Your task to perform on an android device: turn off improve location accuracy Image 0: 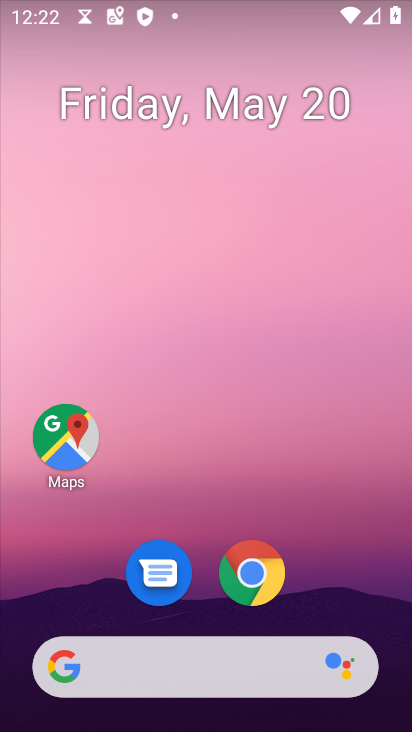
Step 0: drag from (327, 609) to (282, 42)
Your task to perform on an android device: turn off improve location accuracy Image 1: 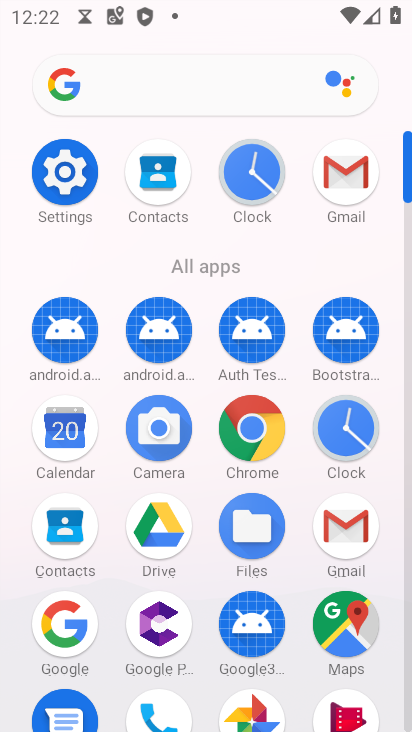
Step 1: click (68, 185)
Your task to perform on an android device: turn off improve location accuracy Image 2: 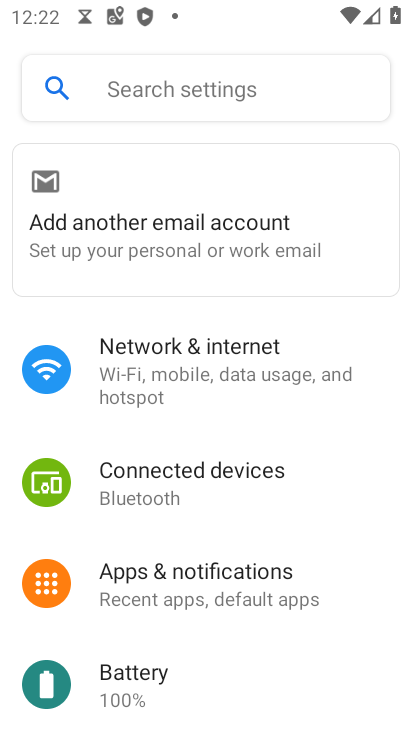
Step 2: drag from (154, 519) to (144, 238)
Your task to perform on an android device: turn off improve location accuracy Image 3: 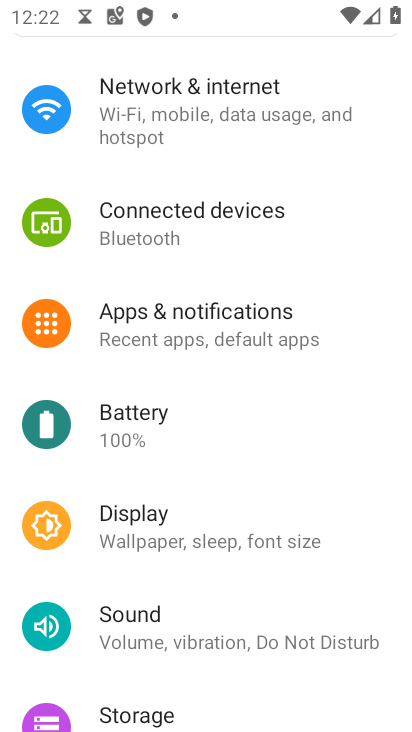
Step 3: drag from (143, 608) to (147, 225)
Your task to perform on an android device: turn off improve location accuracy Image 4: 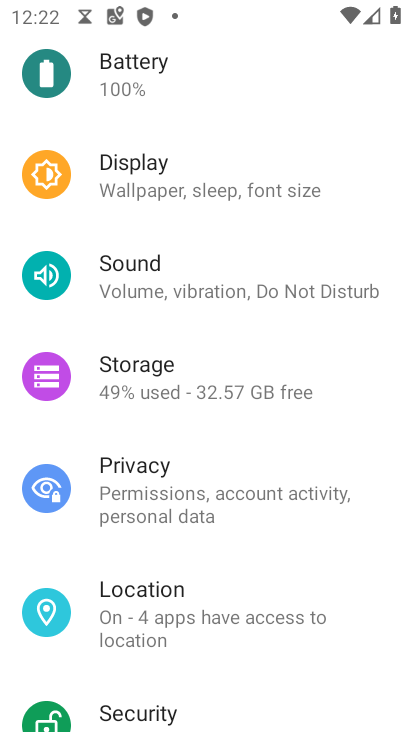
Step 4: click (138, 593)
Your task to perform on an android device: turn off improve location accuracy Image 5: 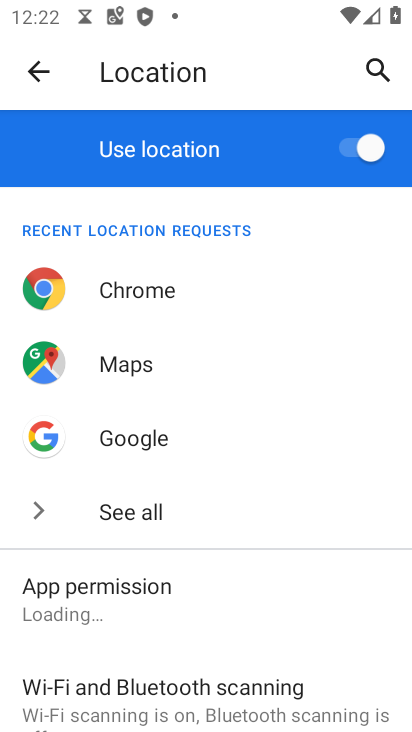
Step 5: drag from (195, 669) to (177, 289)
Your task to perform on an android device: turn off improve location accuracy Image 6: 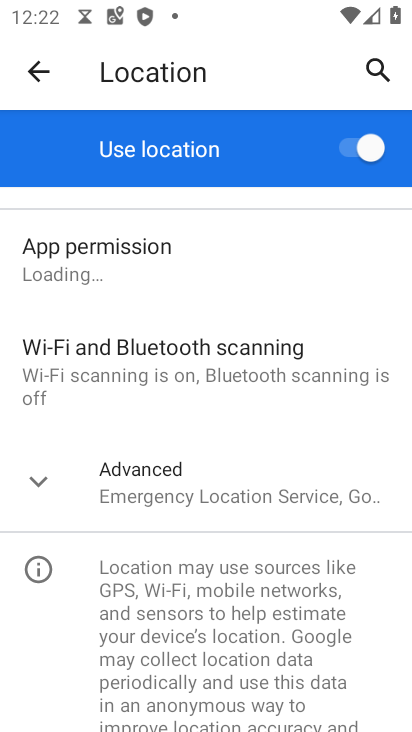
Step 6: click (187, 486)
Your task to perform on an android device: turn off improve location accuracy Image 7: 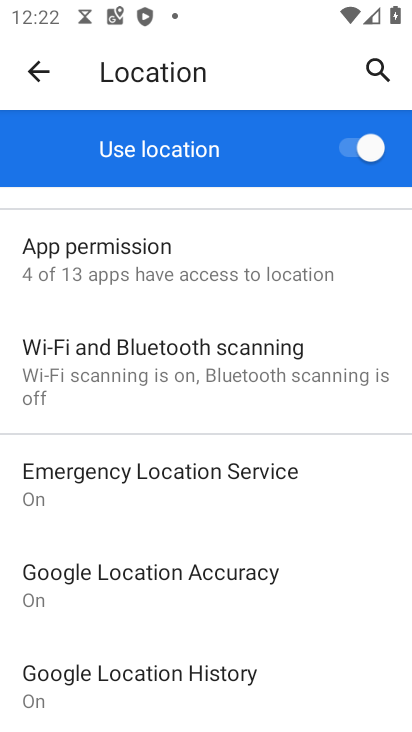
Step 7: click (190, 600)
Your task to perform on an android device: turn off improve location accuracy Image 8: 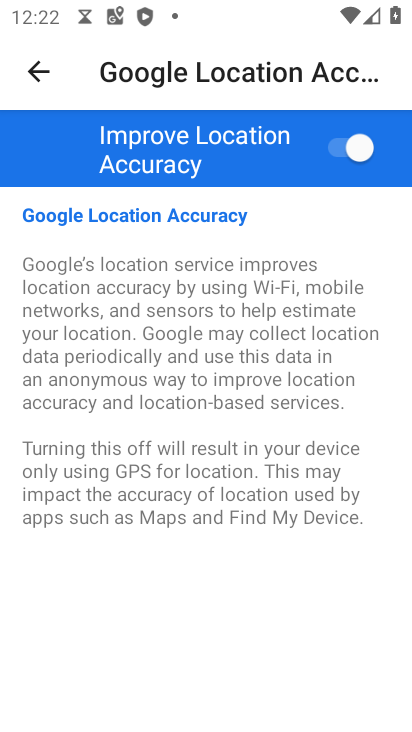
Step 8: click (301, 162)
Your task to perform on an android device: turn off improve location accuracy Image 9: 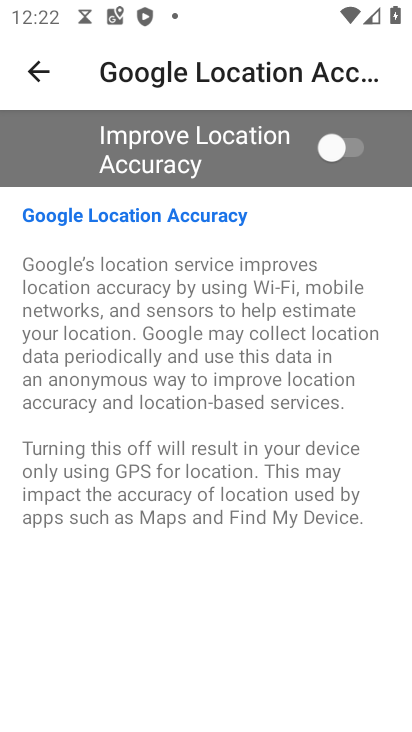
Step 9: task complete